Your task to perform on an android device: toggle location history Image 0: 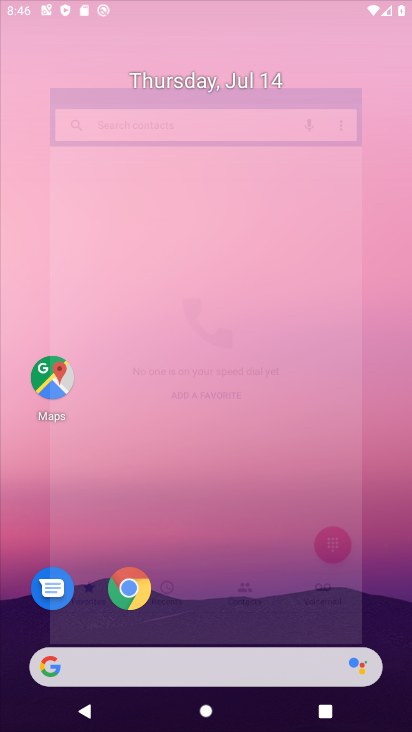
Step 0: drag from (236, 619) to (364, 259)
Your task to perform on an android device: toggle location history Image 1: 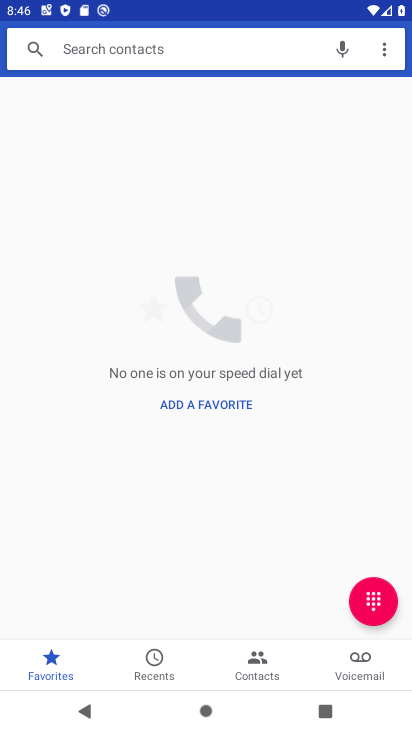
Step 1: press home button
Your task to perform on an android device: toggle location history Image 2: 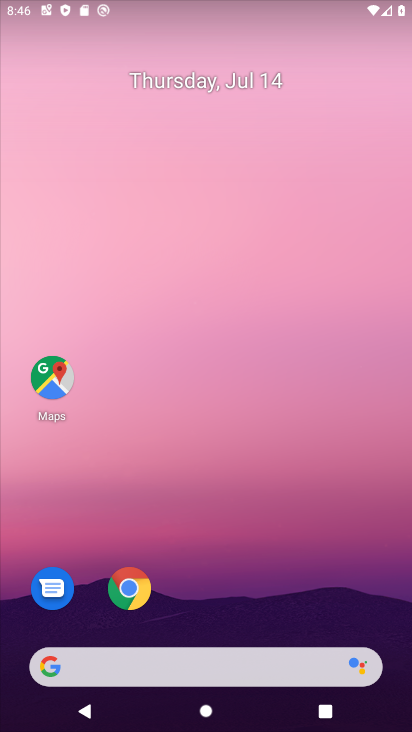
Step 2: drag from (215, 572) to (217, 138)
Your task to perform on an android device: toggle location history Image 3: 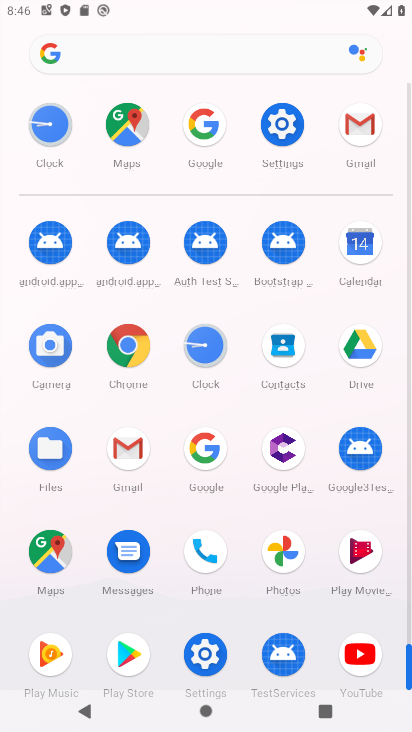
Step 3: click (285, 116)
Your task to perform on an android device: toggle location history Image 4: 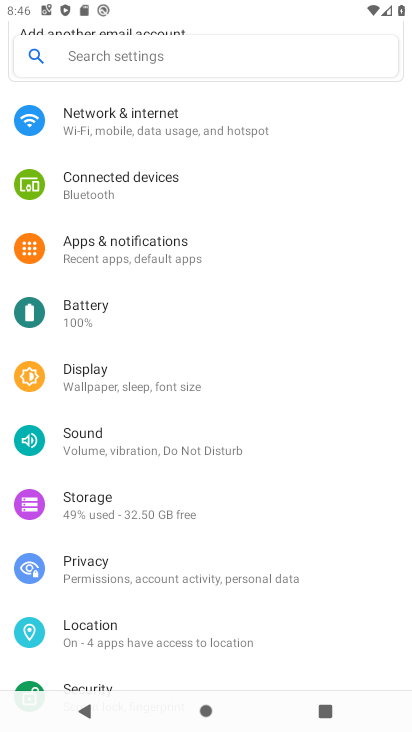
Step 4: click (126, 636)
Your task to perform on an android device: toggle location history Image 5: 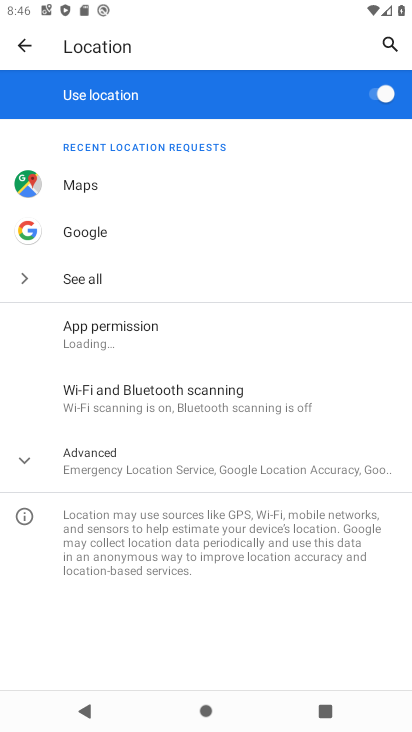
Step 5: click (117, 468)
Your task to perform on an android device: toggle location history Image 6: 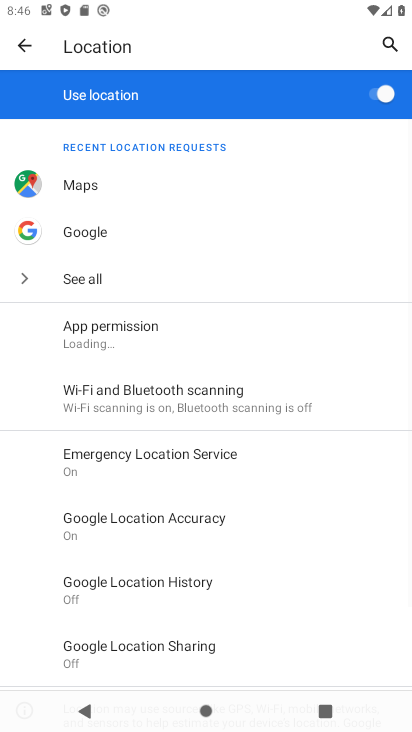
Step 6: click (183, 586)
Your task to perform on an android device: toggle location history Image 7: 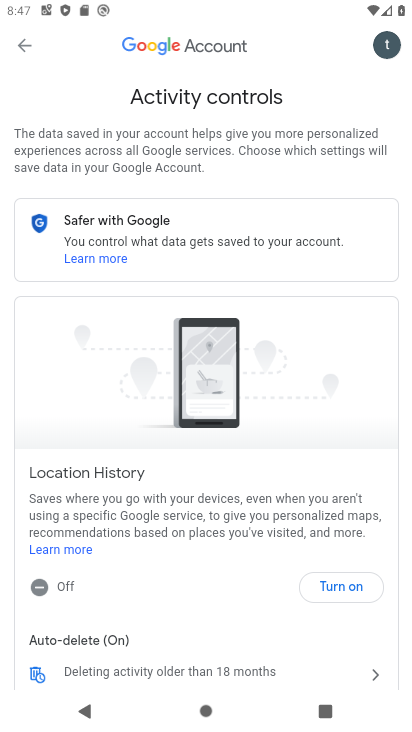
Step 7: click (341, 589)
Your task to perform on an android device: toggle location history Image 8: 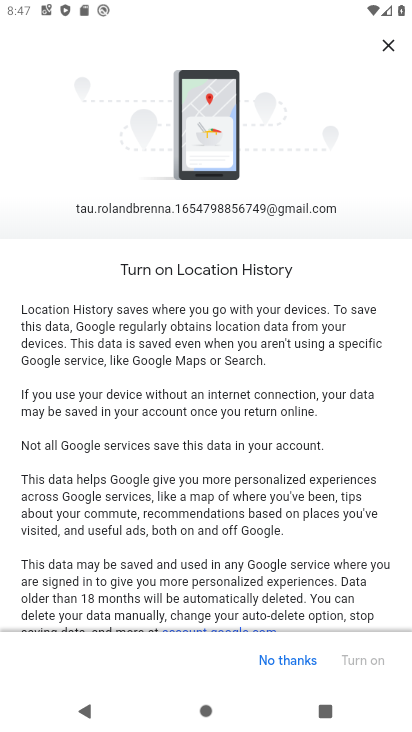
Step 8: drag from (347, 597) to (337, 58)
Your task to perform on an android device: toggle location history Image 9: 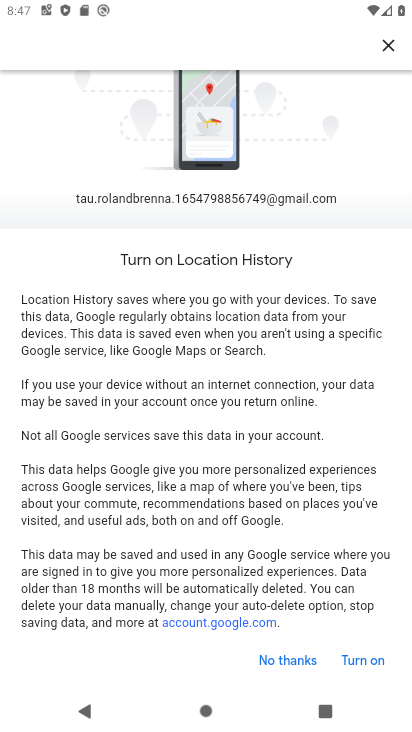
Step 9: click (368, 660)
Your task to perform on an android device: toggle location history Image 10: 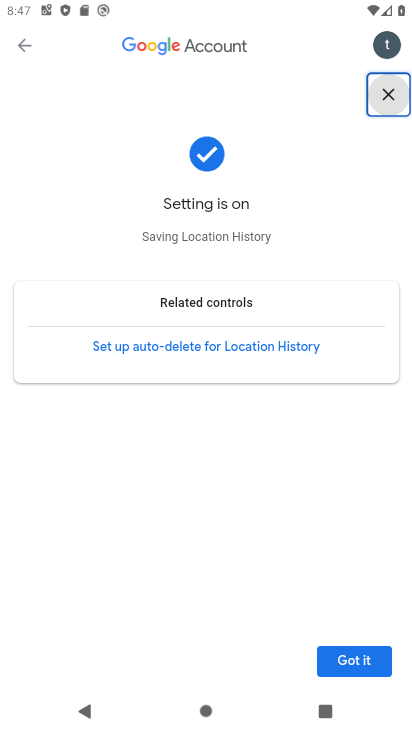
Step 10: click (367, 657)
Your task to perform on an android device: toggle location history Image 11: 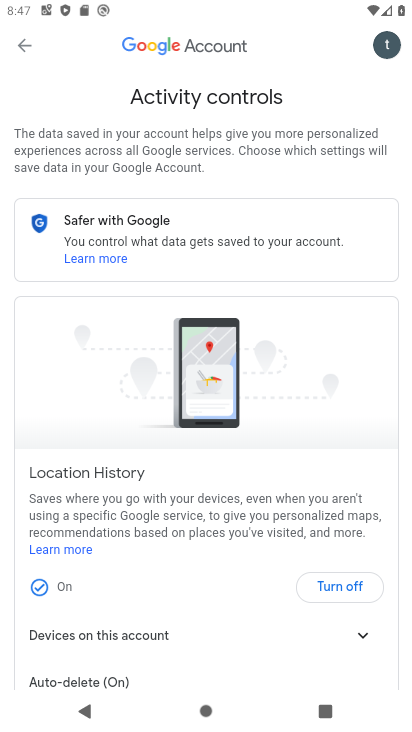
Step 11: task complete